Your task to perform on an android device: Open CNN.com Image 0: 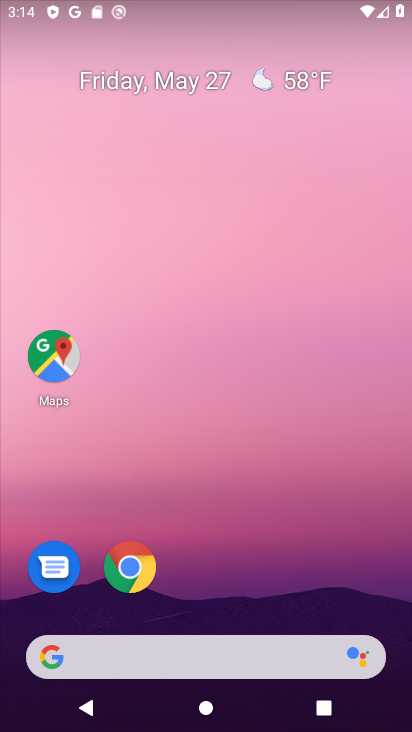
Step 0: press home button
Your task to perform on an android device: Open CNN.com Image 1: 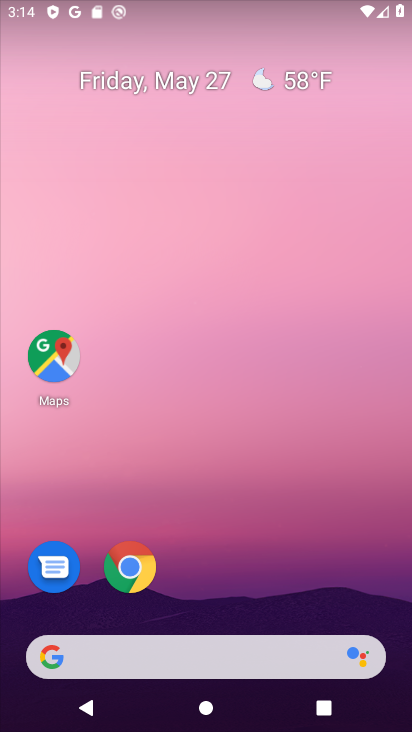
Step 1: click (132, 565)
Your task to perform on an android device: Open CNN.com Image 2: 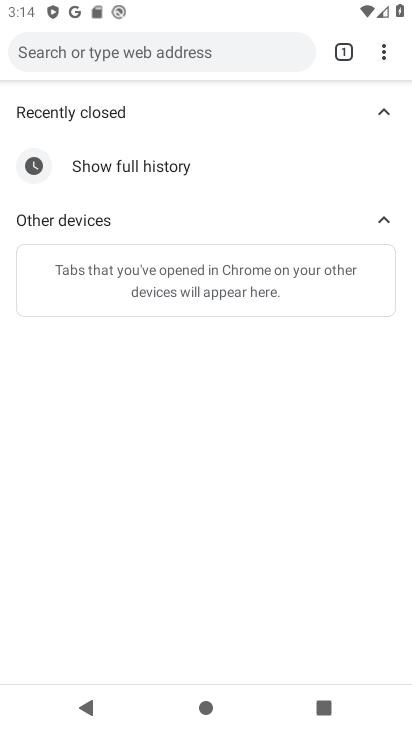
Step 2: click (344, 47)
Your task to perform on an android device: Open CNN.com Image 3: 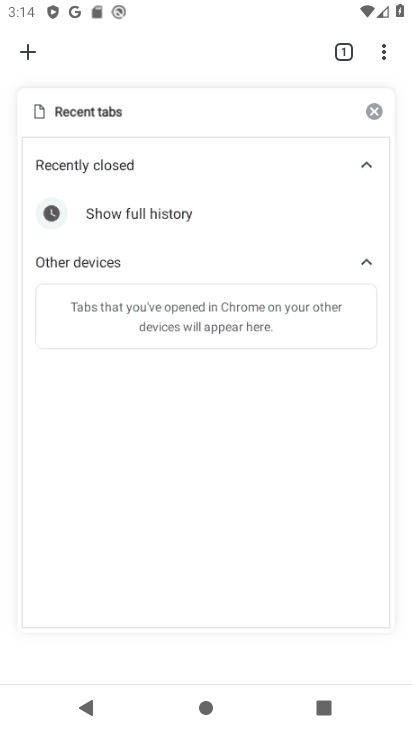
Step 3: click (378, 102)
Your task to perform on an android device: Open CNN.com Image 4: 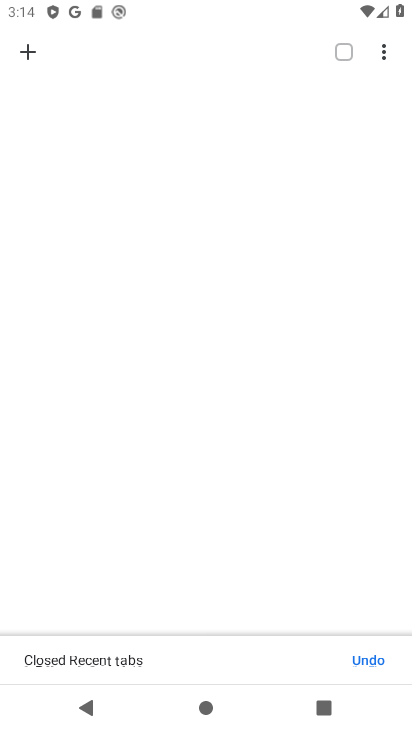
Step 4: click (37, 55)
Your task to perform on an android device: Open CNN.com Image 5: 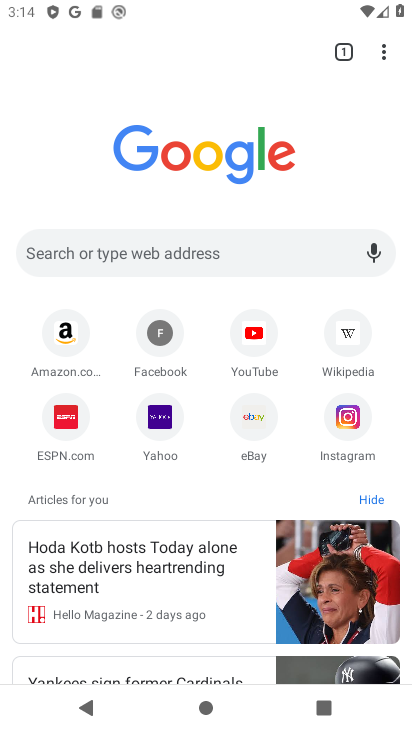
Step 5: click (161, 250)
Your task to perform on an android device: Open CNN.com Image 6: 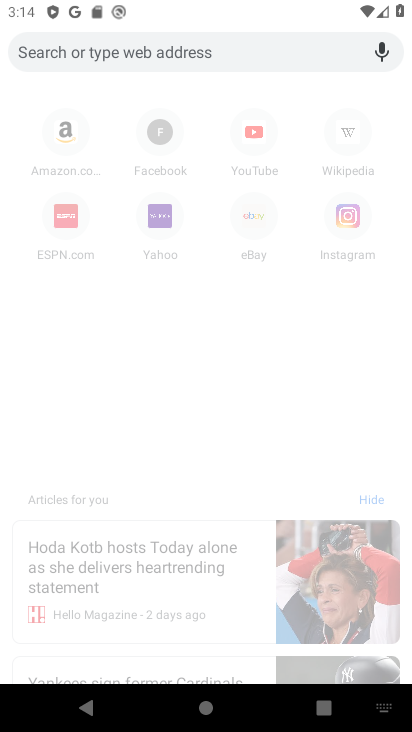
Step 6: type "cnn.com"
Your task to perform on an android device: Open CNN.com Image 7: 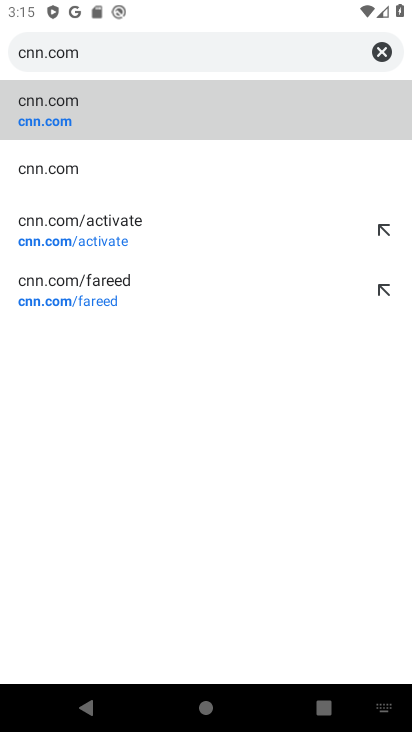
Step 7: click (85, 110)
Your task to perform on an android device: Open CNN.com Image 8: 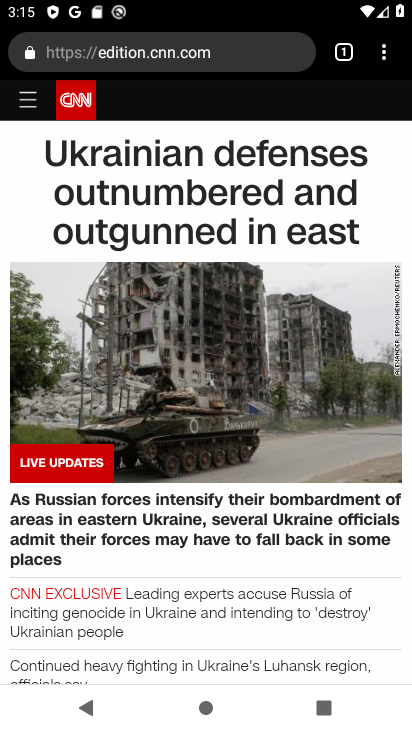
Step 8: drag from (195, 637) to (235, 180)
Your task to perform on an android device: Open CNN.com Image 9: 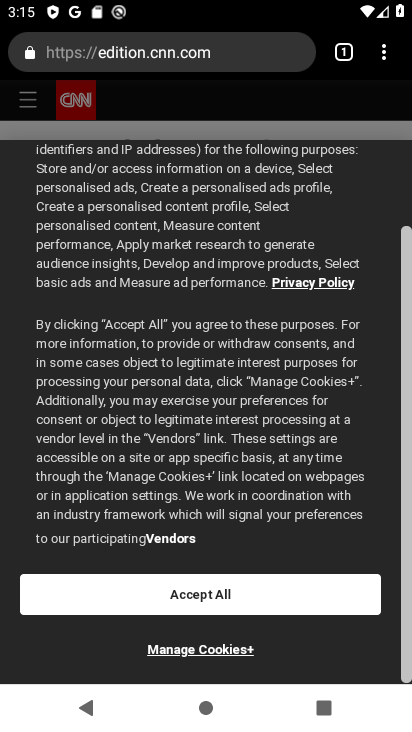
Step 9: click (213, 589)
Your task to perform on an android device: Open CNN.com Image 10: 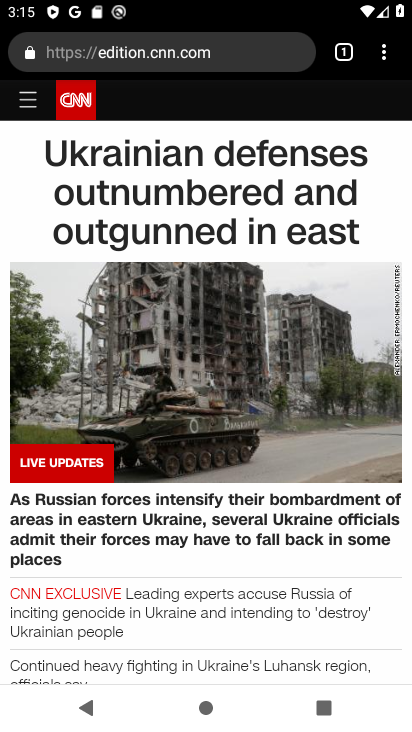
Step 10: task complete